Your task to perform on an android device: What is the news today? Image 0: 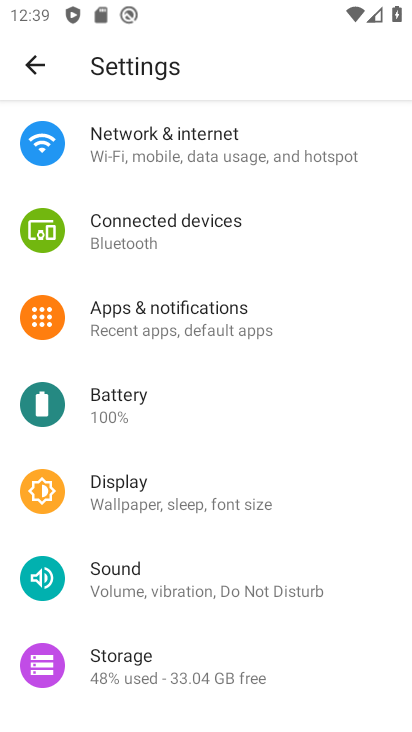
Step 0: press home button
Your task to perform on an android device: What is the news today? Image 1: 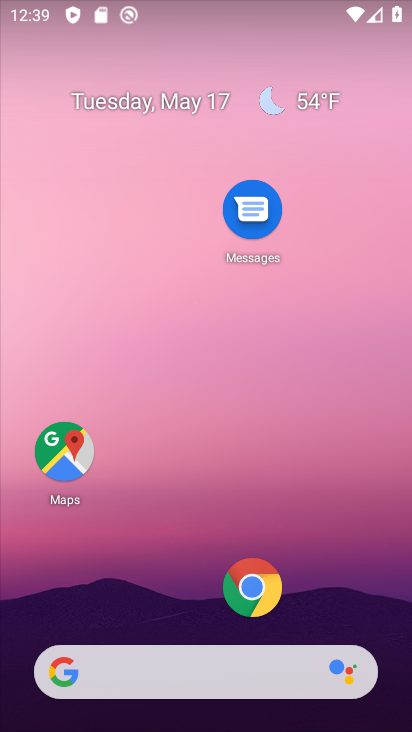
Step 1: click (233, 647)
Your task to perform on an android device: What is the news today? Image 2: 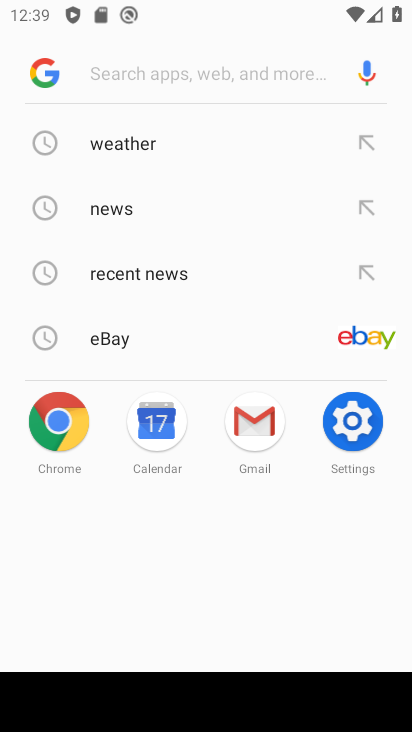
Step 2: type "news today"
Your task to perform on an android device: What is the news today? Image 3: 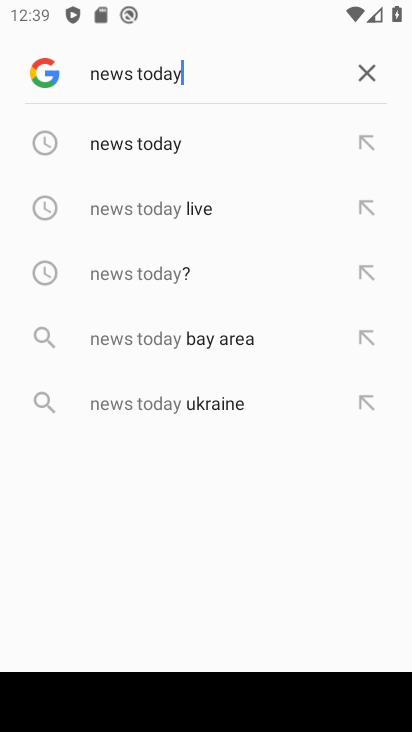
Step 3: click (174, 279)
Your task to perform on an android device: What is the news today? Image 4: 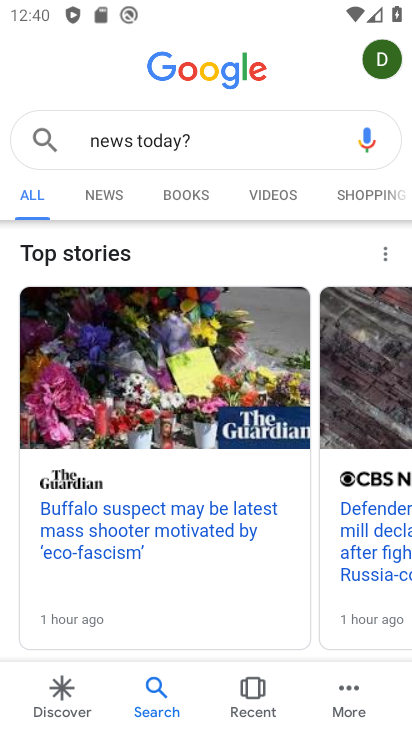
Step 4: task complete